Your task to perform on an android device: turn off notifications in google photos Image 0: 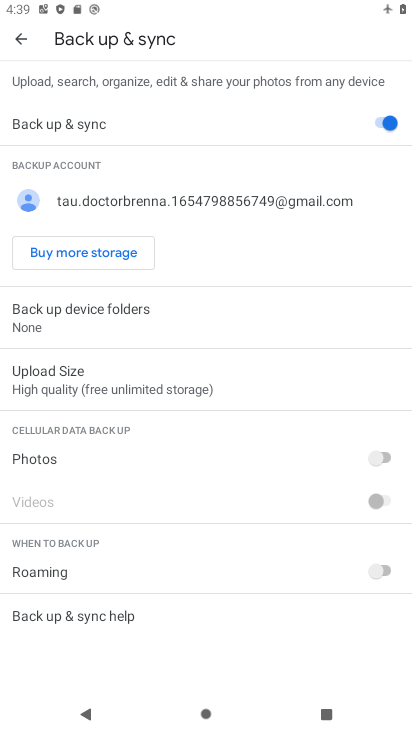
Step 0: press home button
Your task to perform on an android device: turn off notifications in google photos Image 1: 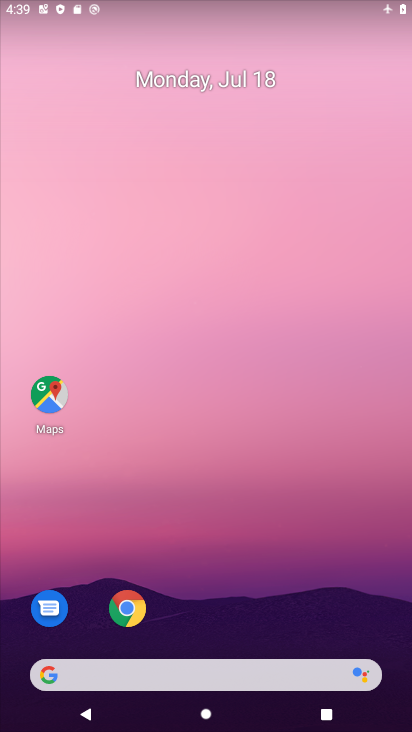
Step 1: drag from (238, 577) to (200, 63)
Your task to perform on an android device: turn off notifications in google photos Image 2: 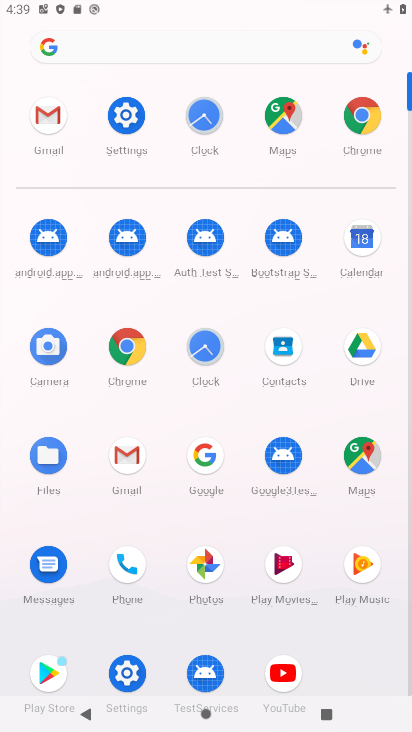
Step 2: click (206, 572)
Your task to perform on an android device: turn off notifications in google photos Image 3: 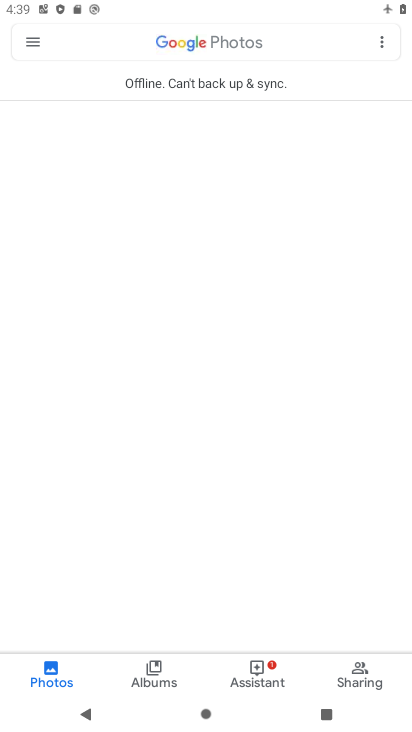
Step 3: click (37, 48)
Your task to perform on an android device: turn off notifications in google photos Image 4: 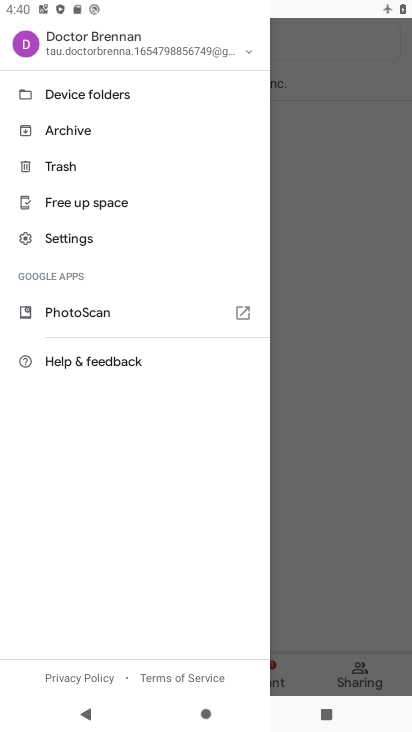
Step 4: click (69, 241)
Your task to perform on an android device: turn off notifications in google photos Image 5: 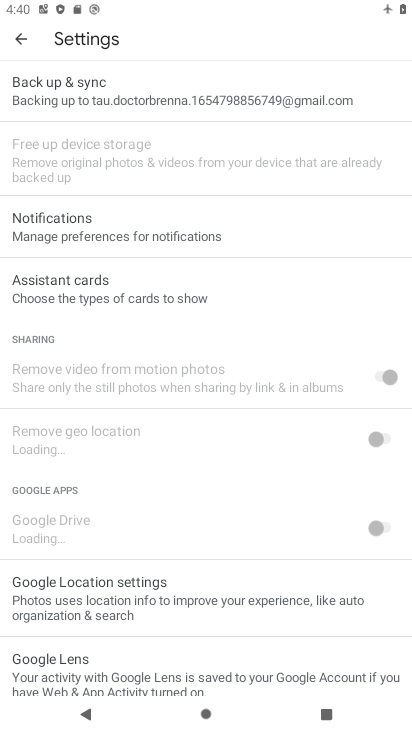
Step 5: click (177, 242)
Your task to perform on an android device: turn off notifications in google photos Image 6: 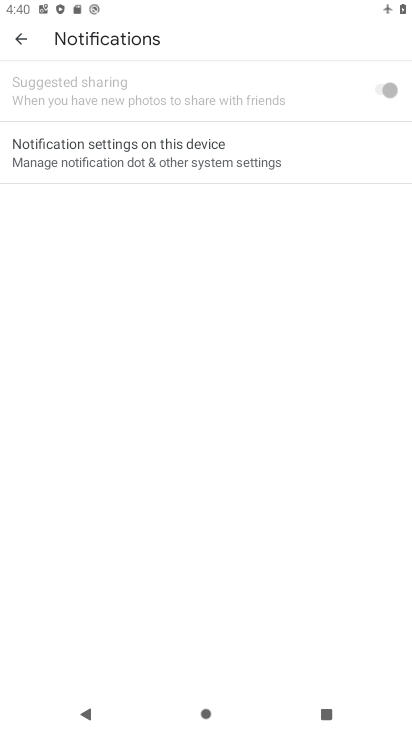
Step 6: click (320, 161)
Your task to perform on an android device: turn off notifications in google photos Image 7: 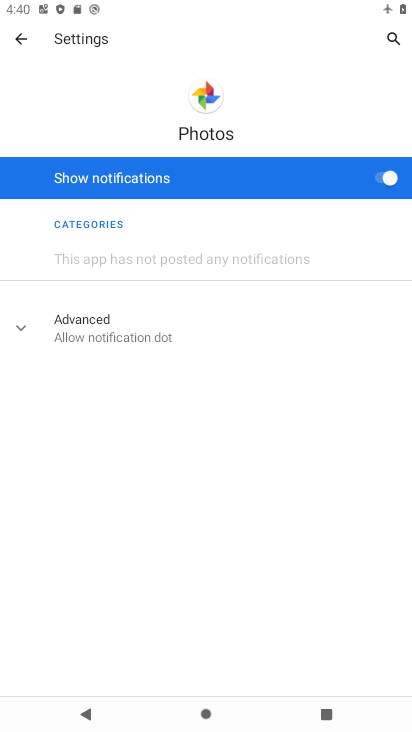
Step 7: click (382, 176)
Your task to perform on an android device: turn off notifications in google photos Image 8: 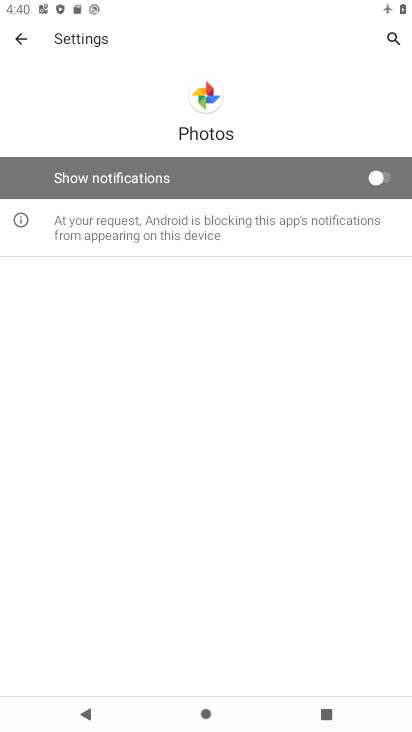
Step 8: task complete